Your task to perform on an android device: Open Google Maps and go to "Timeline" Image 0: 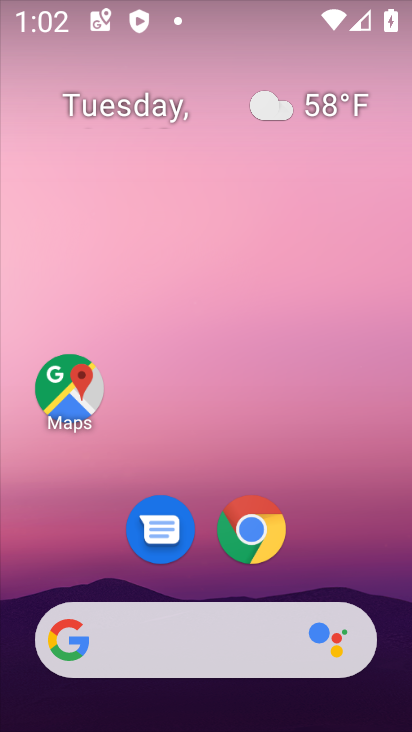
Step 0: drag from (237, 652) to (226, 9)
Your task to perform on an android device: Open Google Maps and go to "Timeline" Image 1: 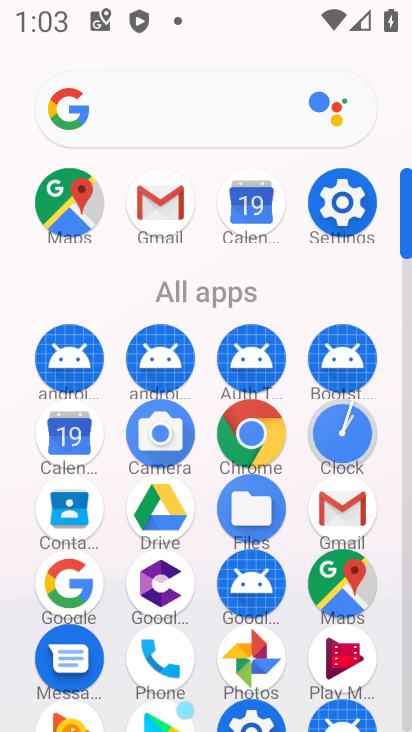
Step 1: click (74, 224)
Your task to perform on an android device: Open Google Maps and go to "Timeline" Image 2: 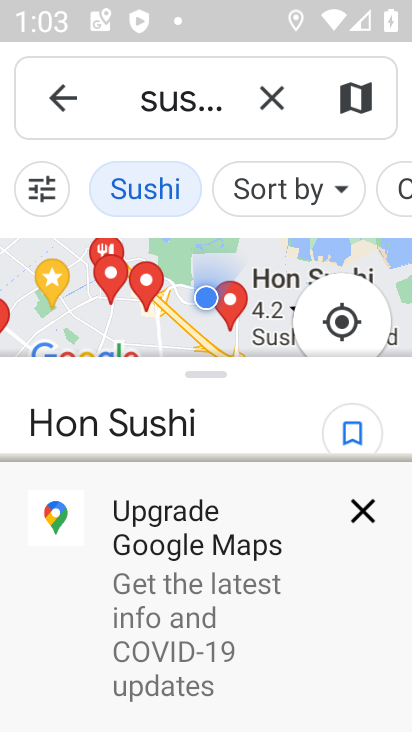
Step 2: click (66, 101)
Your task to perform on an android device: Open Google Maps and go to "Timeline" Image 3: 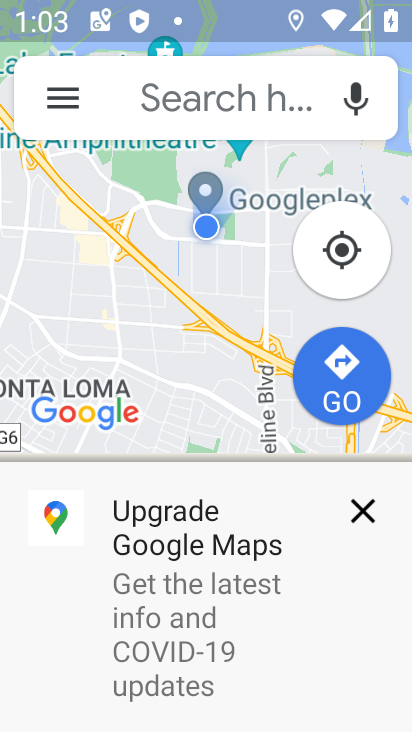
Step 3: click (57, 113)
Your task to perform on an android device: Open Google Maps and go to "Timeline" Image 4: 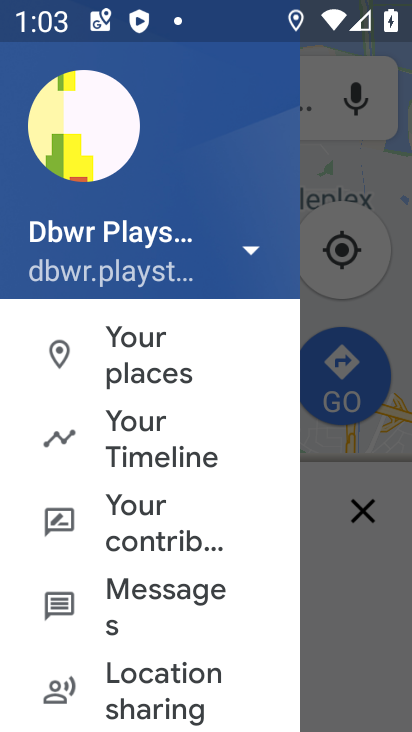
Step 4: click (121, 449)
Your task to perform on an android device: Open Google Maps and go to "Timeline" Image 5: 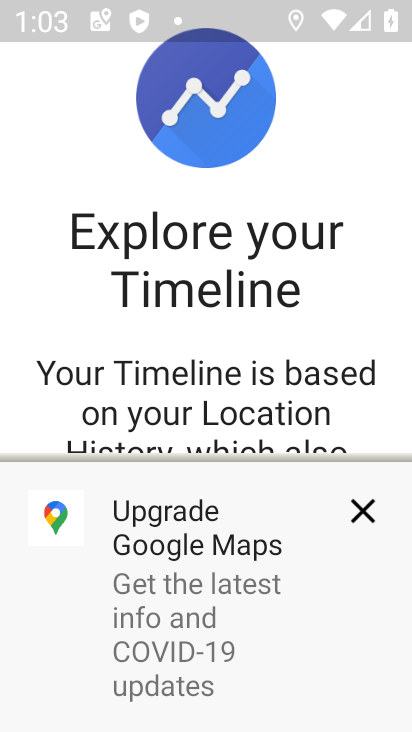
Step 5: click (365, 520)
Your task to perform on an android device: Open Google Maps and go to "Timeline" Image 6: 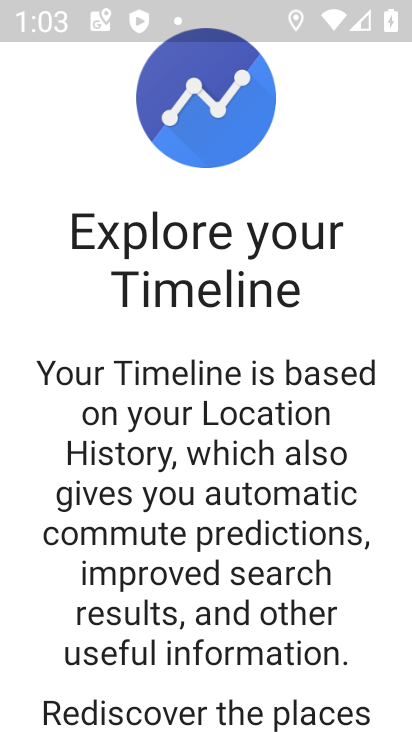
Step 6: drag from (200, 533) to (144, 93)
Your task to perform on an android device: Open Google Maps and go to "Timeline" Image 7: 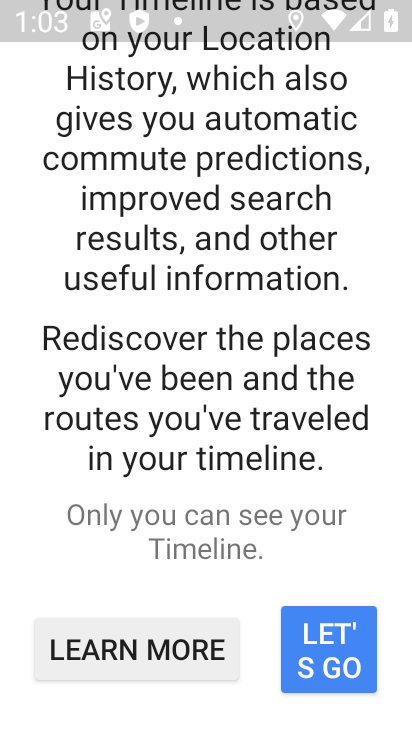
Step 7: drag from (244, 484) to (223, 147)
Your task to perform on an android device: Open Google Maps and go to "Timeline" Image 8: 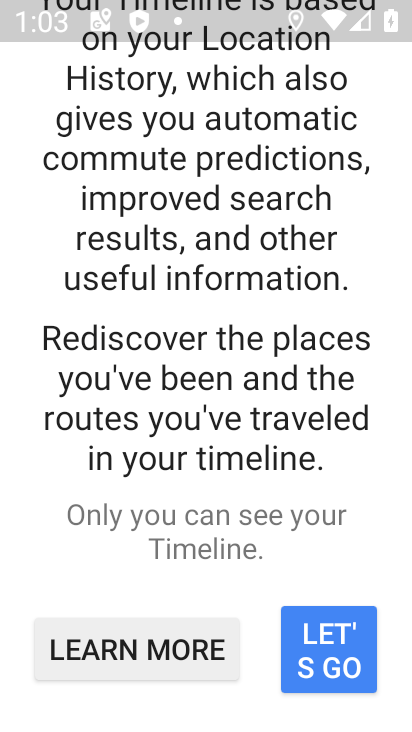
Step 8: drag from (237, 546) to (146, 319)
Your task to perform on an android device: Open Google Maps and go to "Timeline" Image 9: 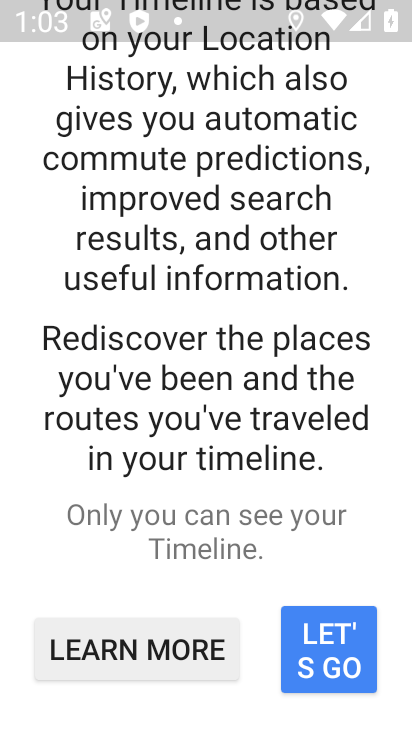
Step 9: click (336, 680)
Your task to perform on an android device: Open Google Maps and go to "Timeline" Image 10: 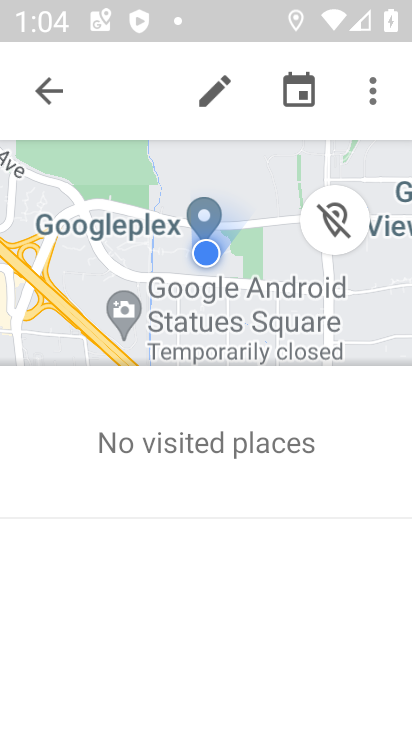
Step 10: task complete